Your task to perform on an android device: Open ESPN.com Image 0: 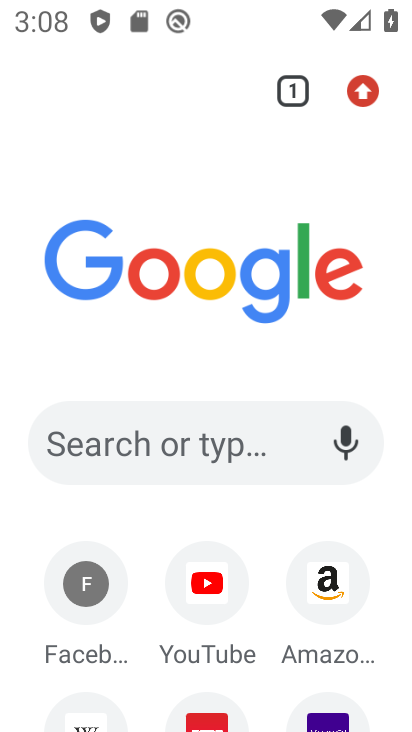
Step 0: drag from (388, 593) to (408, 445)
Your task to perform on an android device: Open ESPN.com Image 1: 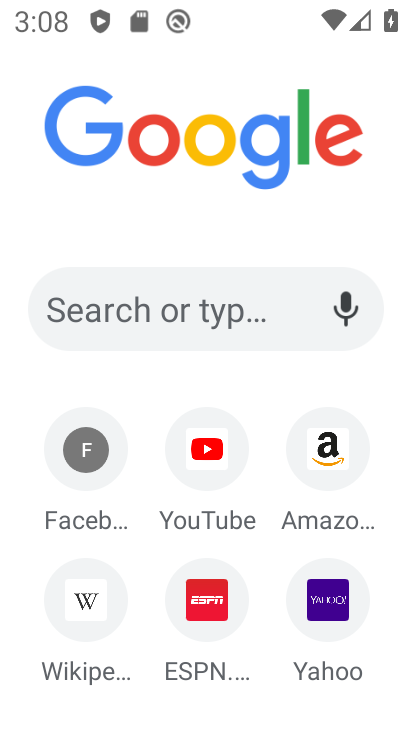
Step 1: click (211, 621)
Your task to perform on an android device: Open ESPN.com Image 2: 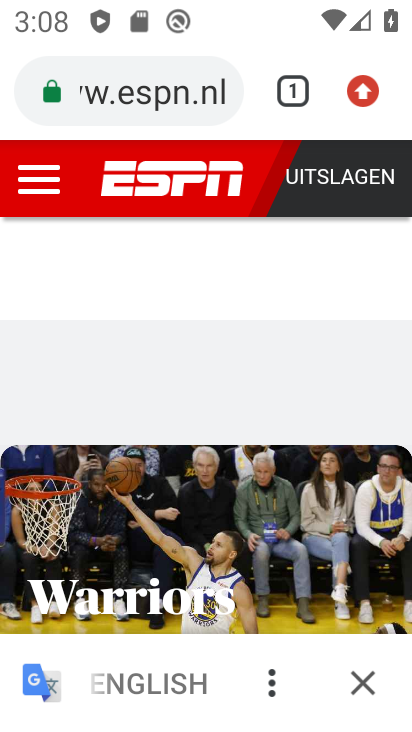
Step 2: task complete